Your task to perform on an android device: all mails in gmail Image 0: 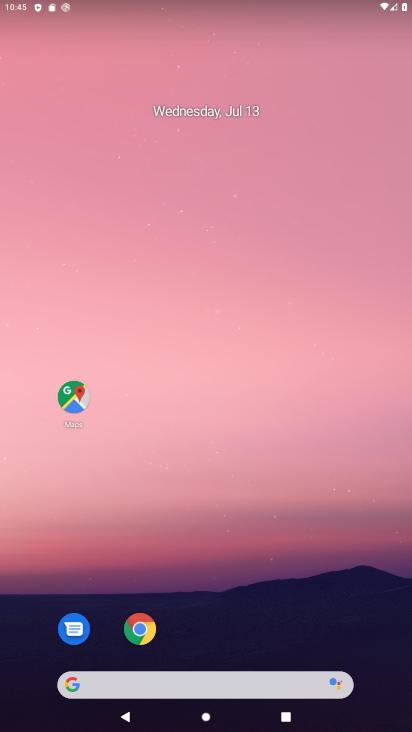
Step 0: drag from (236, 712) to (233, 201)
Your task to perform on an android device: all mails in gmail Image 1: 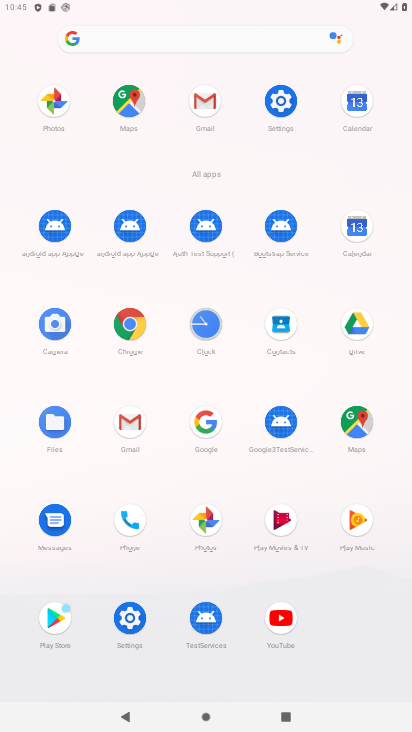
Step 1: click (128, 426)
Your task to perform on an android device: all mails in gmail Image 2: 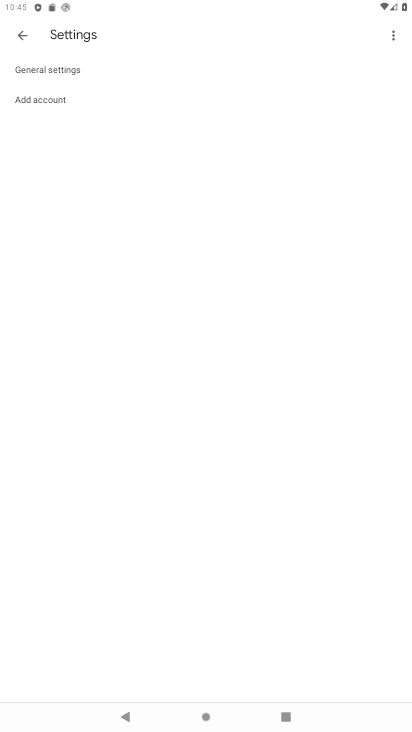
Step 2: click (21, 38)
Your task to perform on an android device: all mails in gmail Image 3: 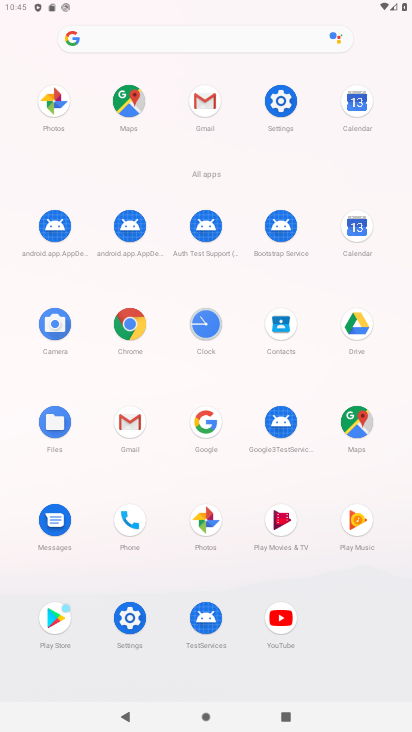
Step 3: click (134, 422)
Your task to perform on an android device: all mails in gmail Image 4: 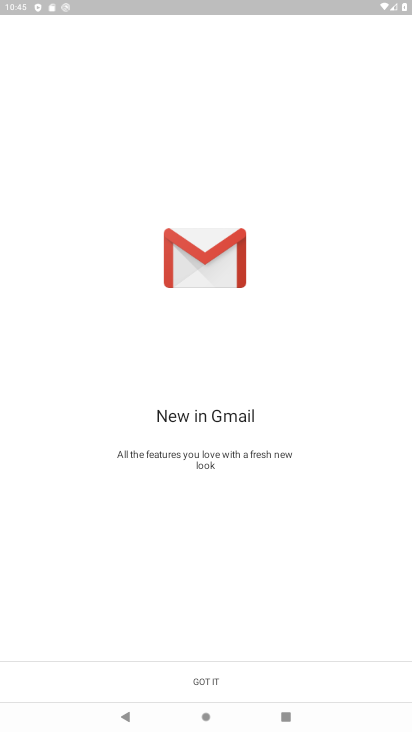
Step 4: click (208, 672)
Your task to perform on an android device: all mails in gmail Image 5: 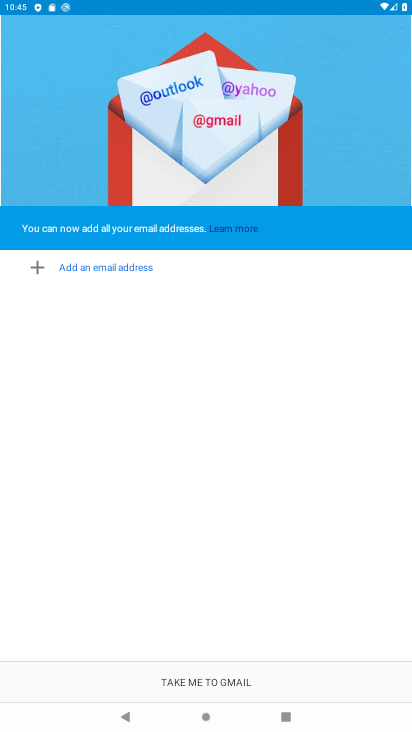
Step 5: click (210, 679)
Your task to perform on an android device: all mails in gmail Image 6: 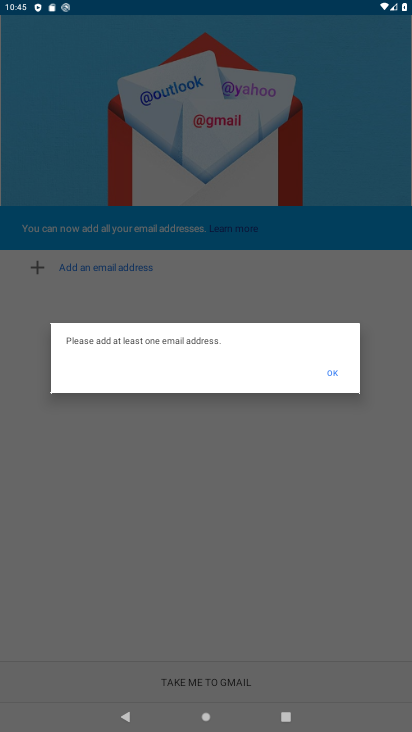
Step 6: task complete